Your task to perform on an android device: What's the weather? Image 0: 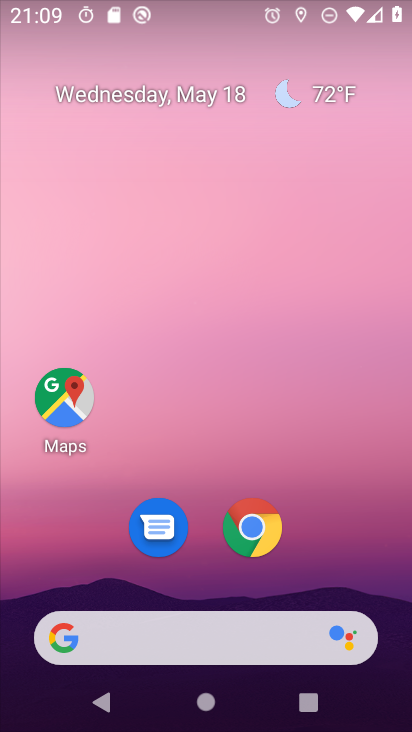
Step 0: click (328, 89)
Your task to perform on an android device: What's the weather? Image 1: 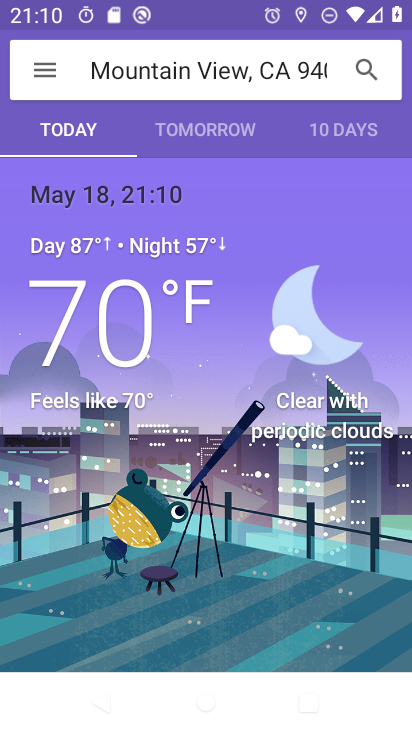
Step 1: task complete